Your task to perform on an android device: turn off location Image 0: 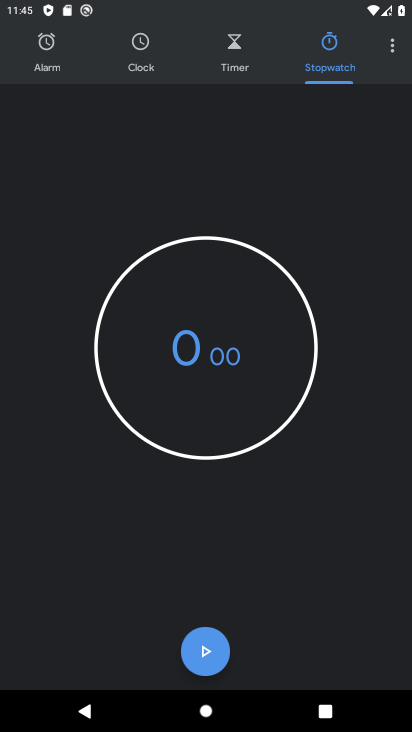
Step 0: press home button
Your task to perform on an android device: turn off location Image 1: 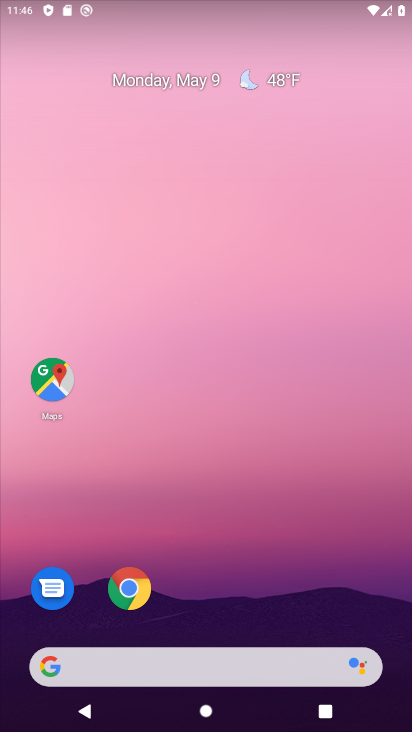
Step 1: drag from (326, 562) to (231, 34)
Your task to perform on an android device: turn off location Image 2: 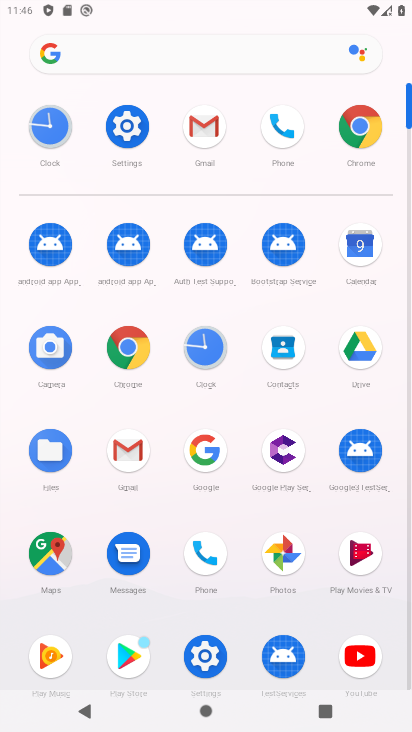
Step 2: click (120, 142)
Your task to perform on an android device: turn off location Image 3: 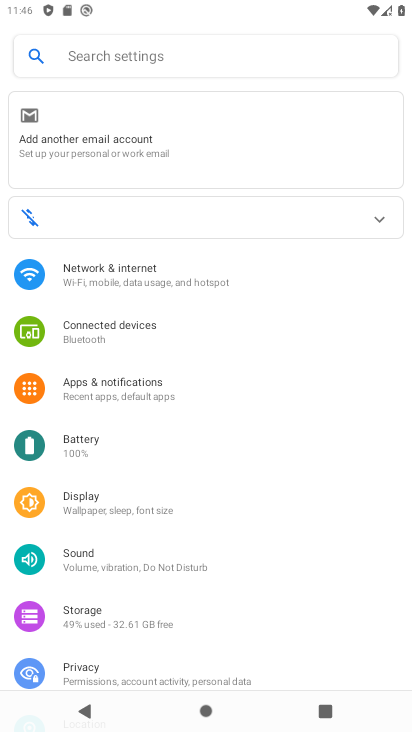
Step 3: drag from (103, 545) to (179, 174)
Your task to perform on an android device: turn off location Image 4: 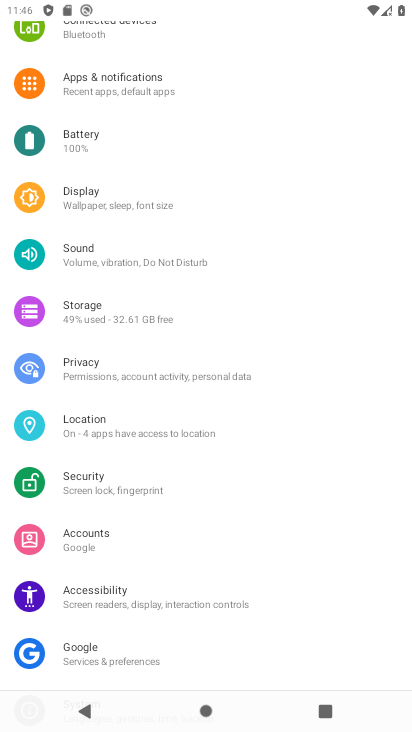
Step 4: click (112, 430)
Your task to perform on an android device: turn off location Image 5: 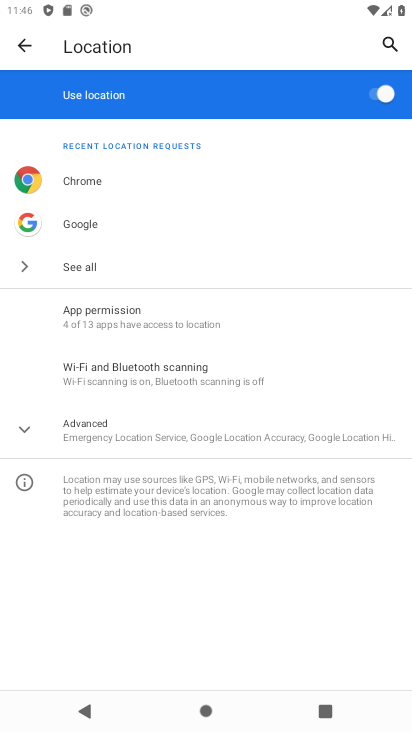
Step 5: click (379, 80)
Your task to perform on an android device: turn off location Image 6: 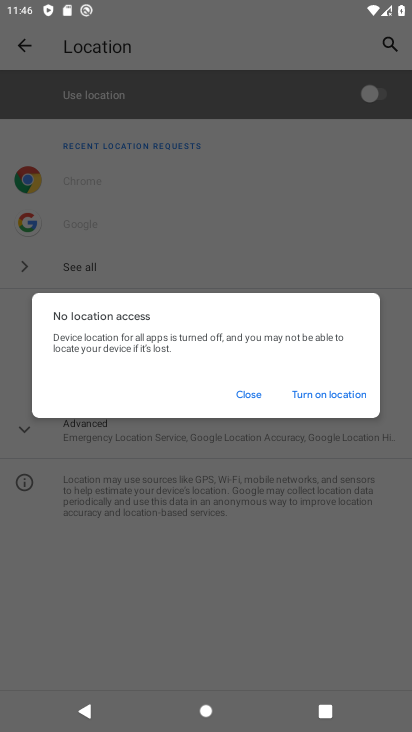
Step 6: task complete